Your task to perform on an android device: Do I have any events today? Image 0: 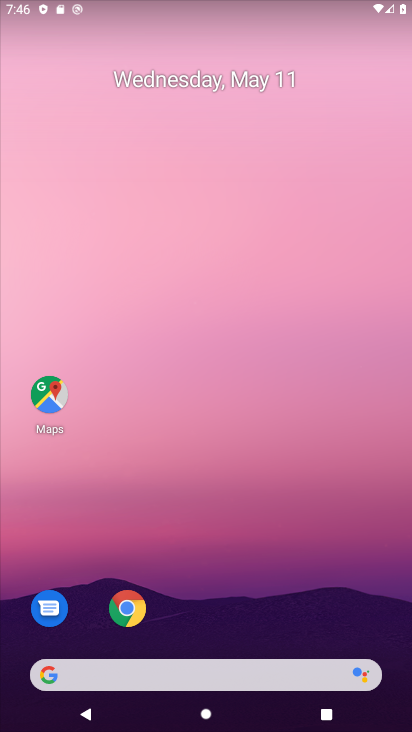
Step 0: drag from (249, 629) to (299, 21)
Your task to perform on an android device: Do I have any events today? Image 1: 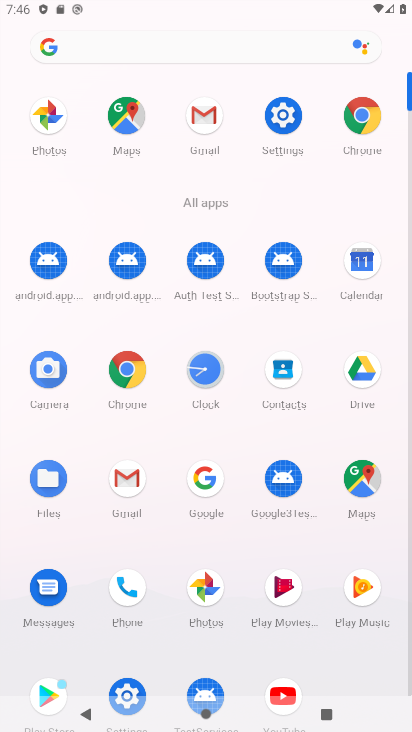
Step 1: click (285, 114)
Your task to perform on an android device: Do I have any events today? Image 2: 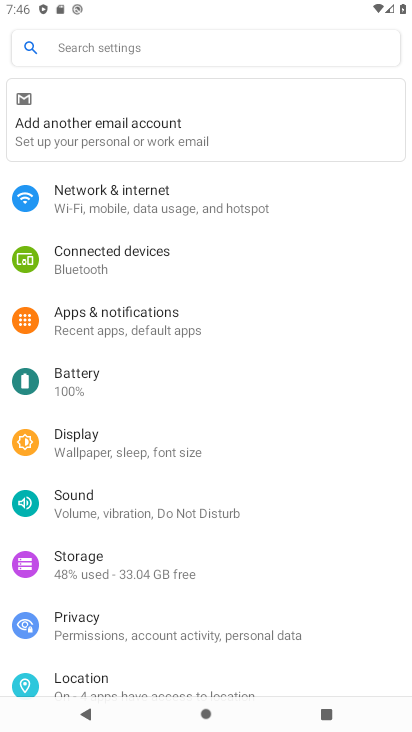
Step 2: press home button
Your task to perform on an android device: Do I have any events today? Image 3: 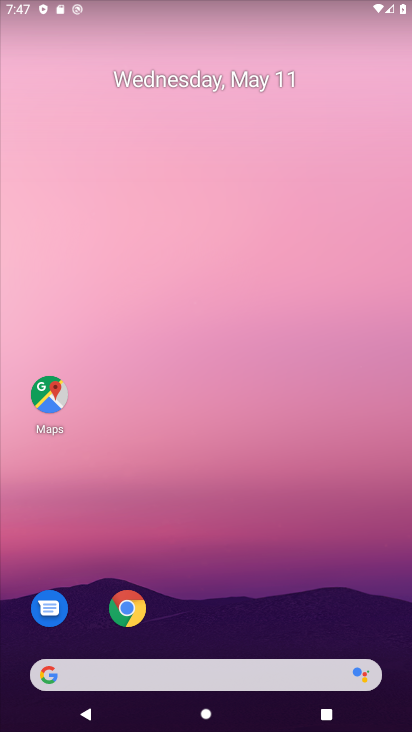
Step 3: drag from (266, 630) to (315, 187)
Your task to perform on an android device: Do I have any events today? Image 4: 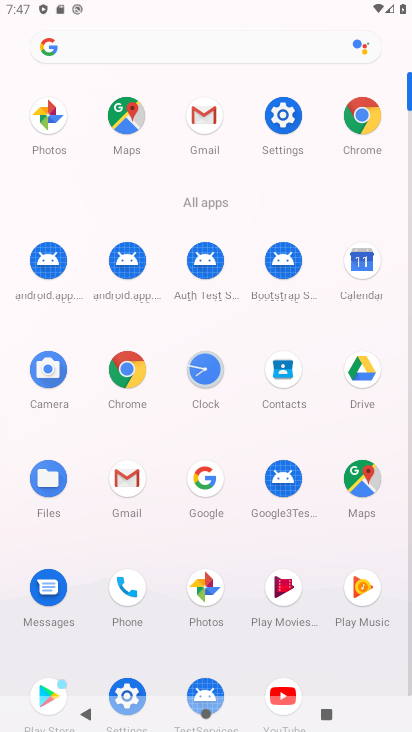
Step 4: click (345, 271)
Your task to perform on an android device: Do I have any events today? Image 5: 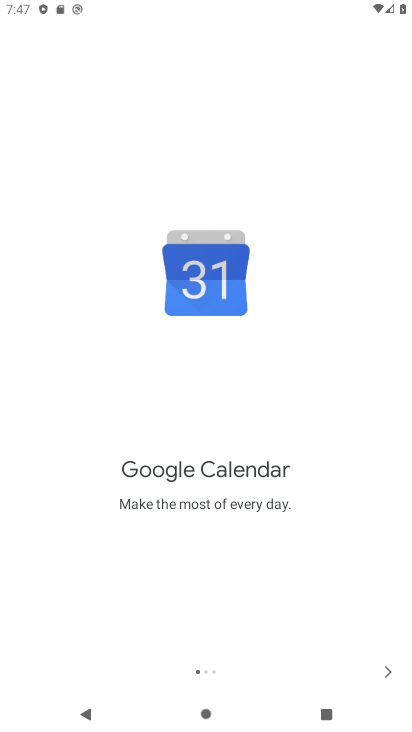
Step 5: click (375, 667)
Your task to perform on an android device: Do I have any events today? Image 6: 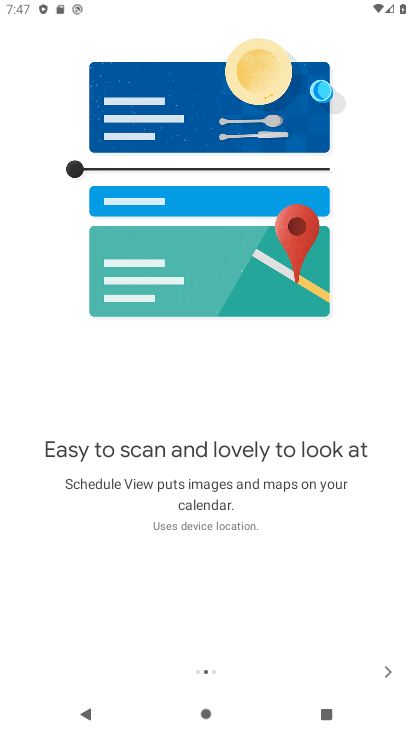
Step 6: click (375, 667)
Your task to perform on an android device: Do I have any events today? Image 7: 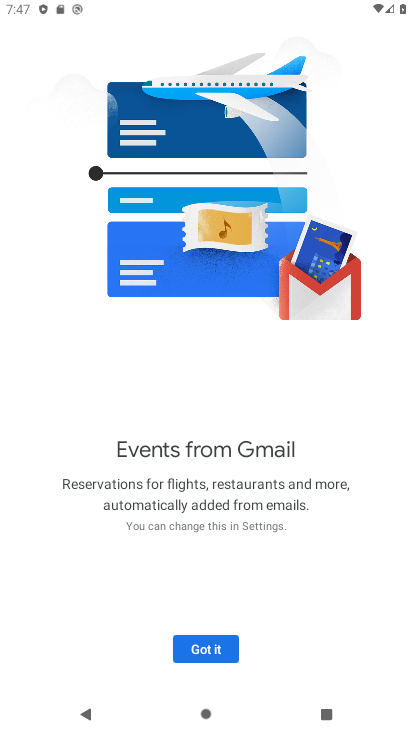
Step 7: click (375, 667)
Your task to perform on an android device: Do I have any events today? Image 8: 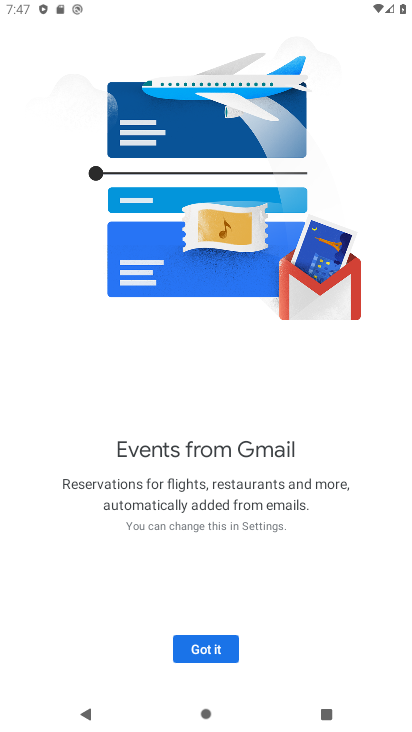
Step 8: click (242, 655)
Your task to perform on an android device: Do I have any events today? Image 9: 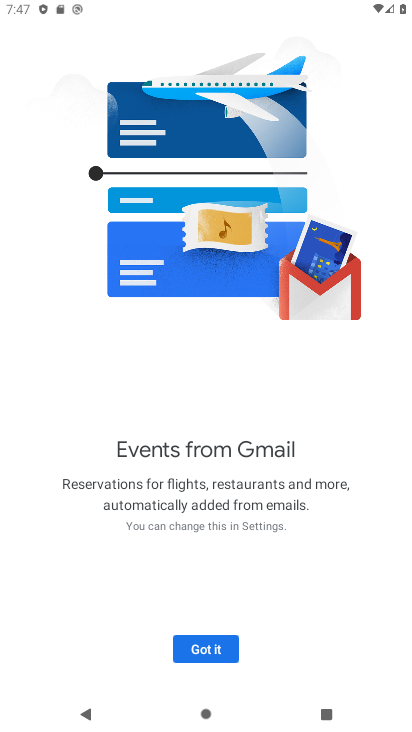
Step 9: click (233, 651)
Your task to perform on an android device: Do I have any events today? Image 10: 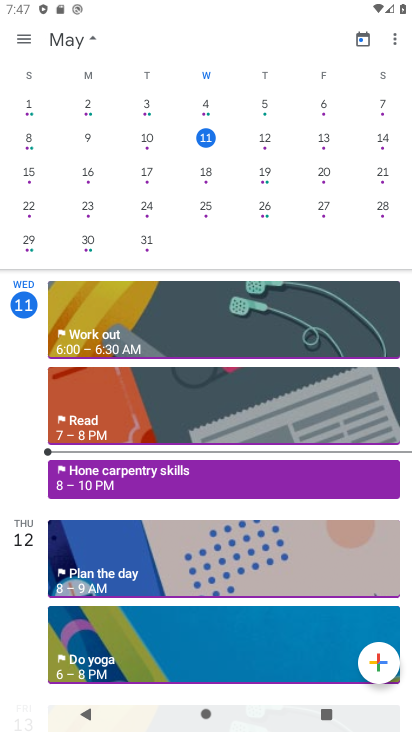
Step 10: task complete